Your task to perform on an android device: Open Google Chrome and open the bookmarks view Image 0: 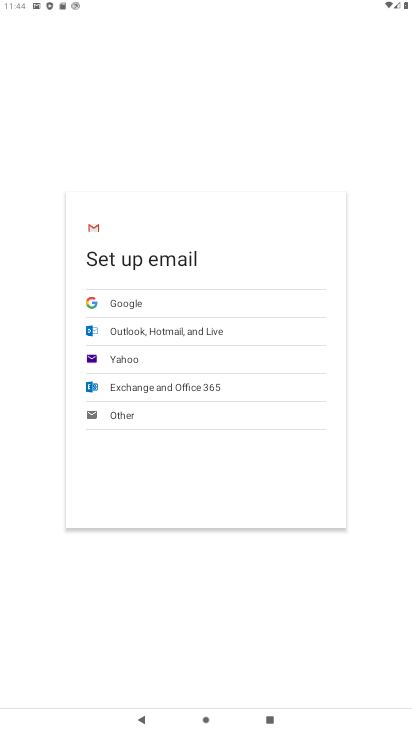
Step 0: press home button
Your task to perform on an android device: Open Google Chrome and open the bookmarks view Image 1: 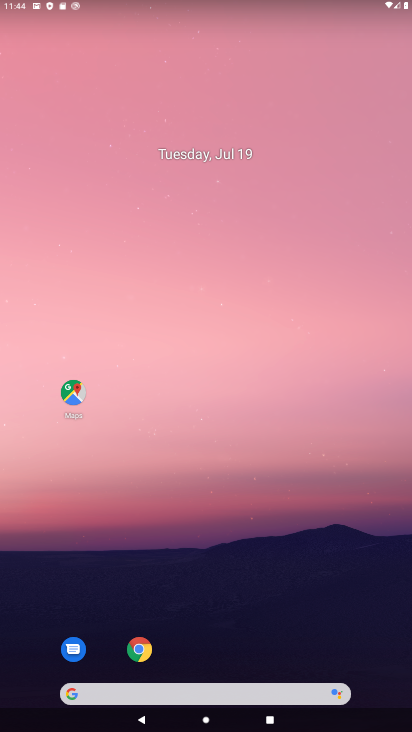
Step 1: drag from (187, 674) to (106, 200)
Your task to perform on an android device: Open Google Chrome and open the bookmarks view Image 2: 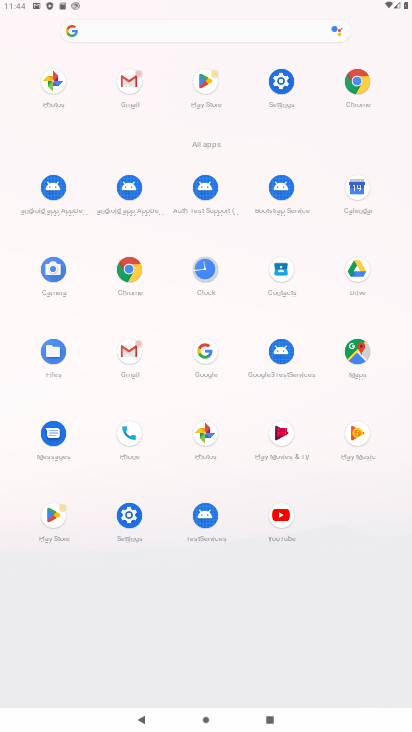
Step 2: click (128, 274)
Your task to perform on an android device: Open Google Chrome and open the bookmarks view Image 3: 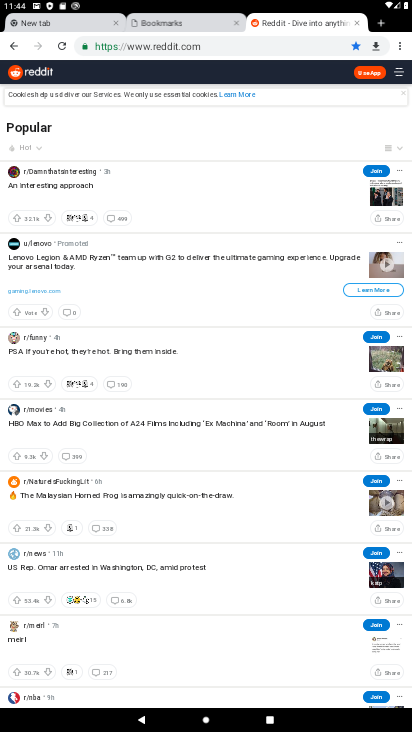
Step 3: click (397, 43)
Your task to perform on an android device: Open Google Chrome and open the bookmarks view Image 4: 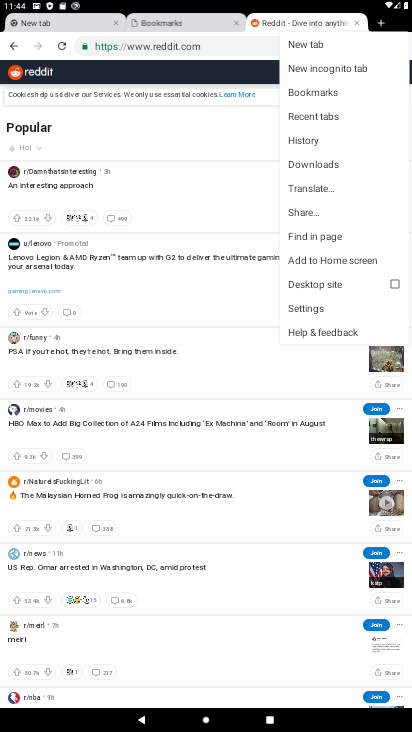
Step 4: click (318, 96)
Your task to perform on an android device: Open Google Chrome and open the bookmarks view Image 5: 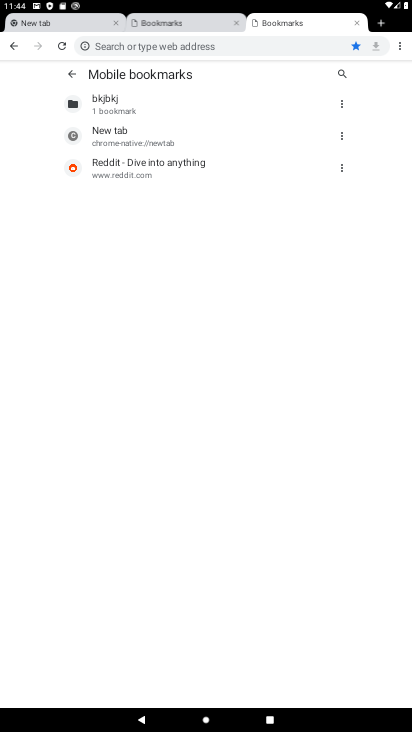
Step 5: task complete